Your task to perform on an android device: Search for "usb-c to usb-b" on ebay, select the first entry, and add it to the cart. Image 0: 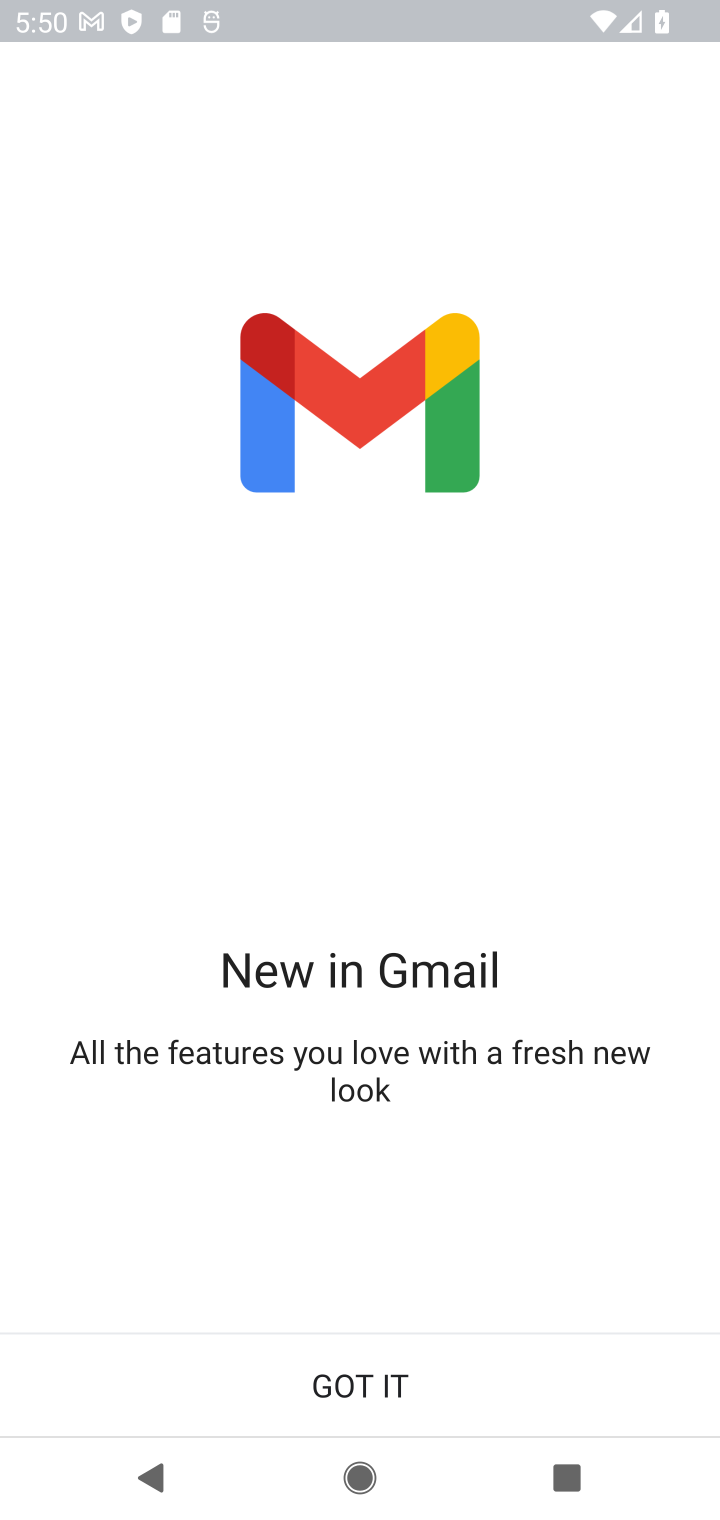
Step 0: press home button
Your task to perform on an android device: Search for "usb-c to usb-b" on ebay, select the first entry, and add it to the cart. Image 1: 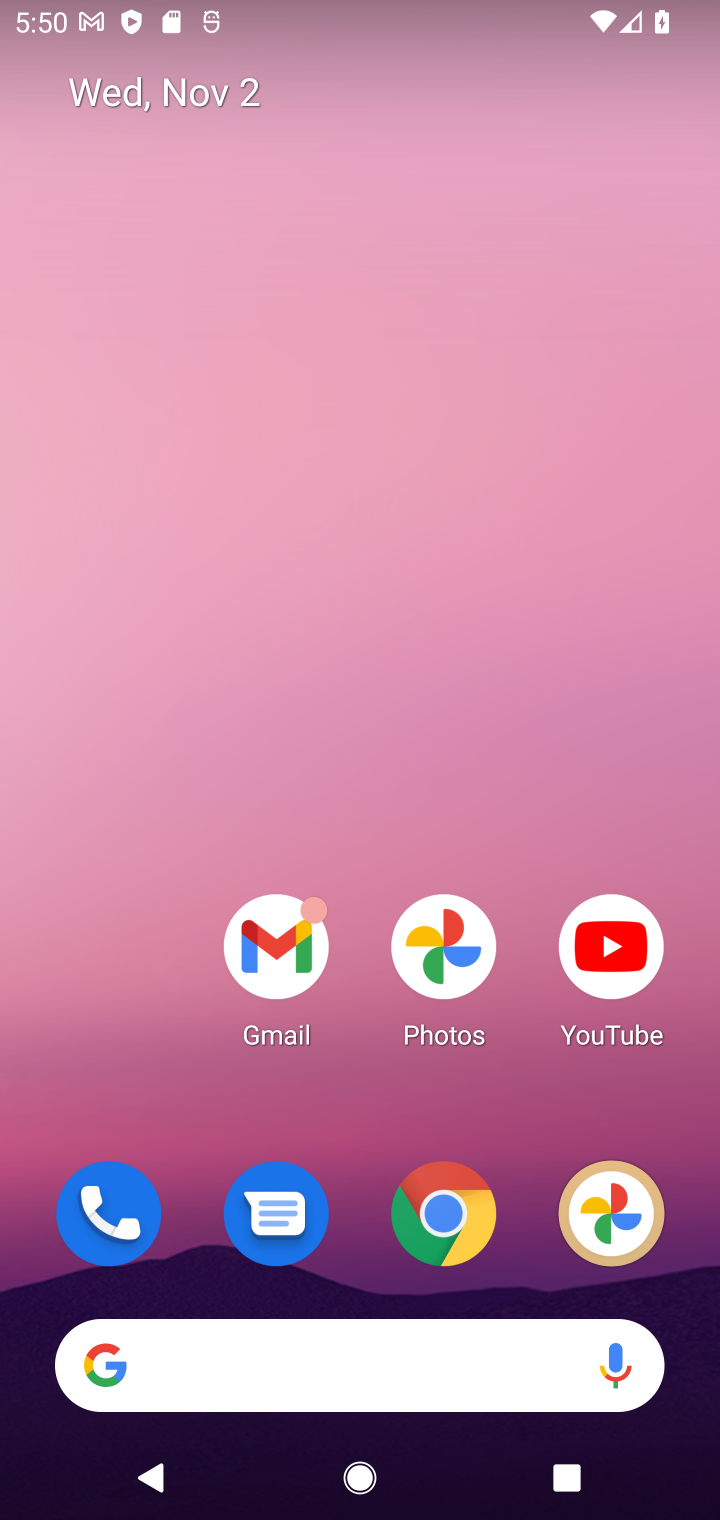
Step 1: click (452, 1210)
Your task to perform on an android device: Search for "usb-c to usb-b" on ebay, select the first entry, and add it to the cart. Image 2: 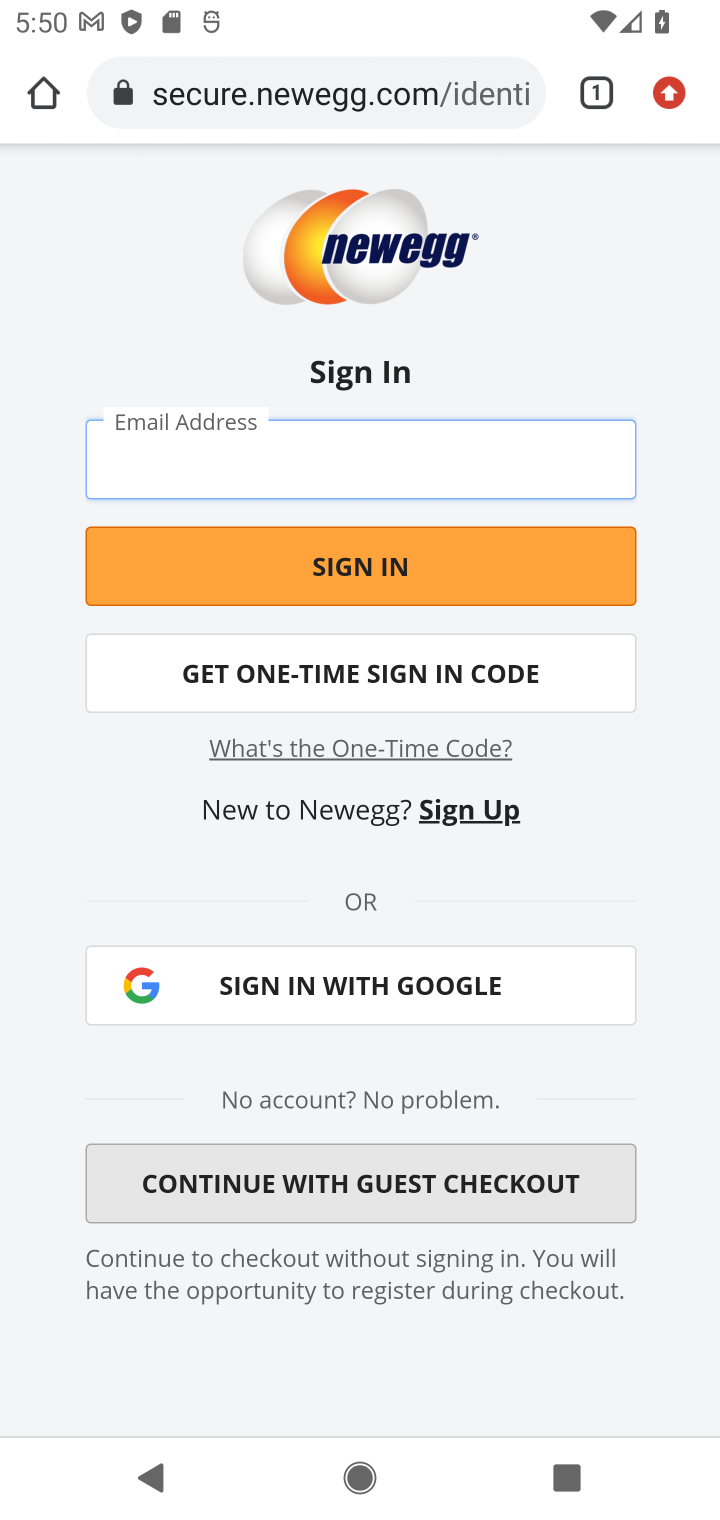
Step 2: click (395, 63)
Your task to perform on an android device: Search for "usb-c to usb-b" on ebay, select the first entry, and add it to the cart. Image 3: 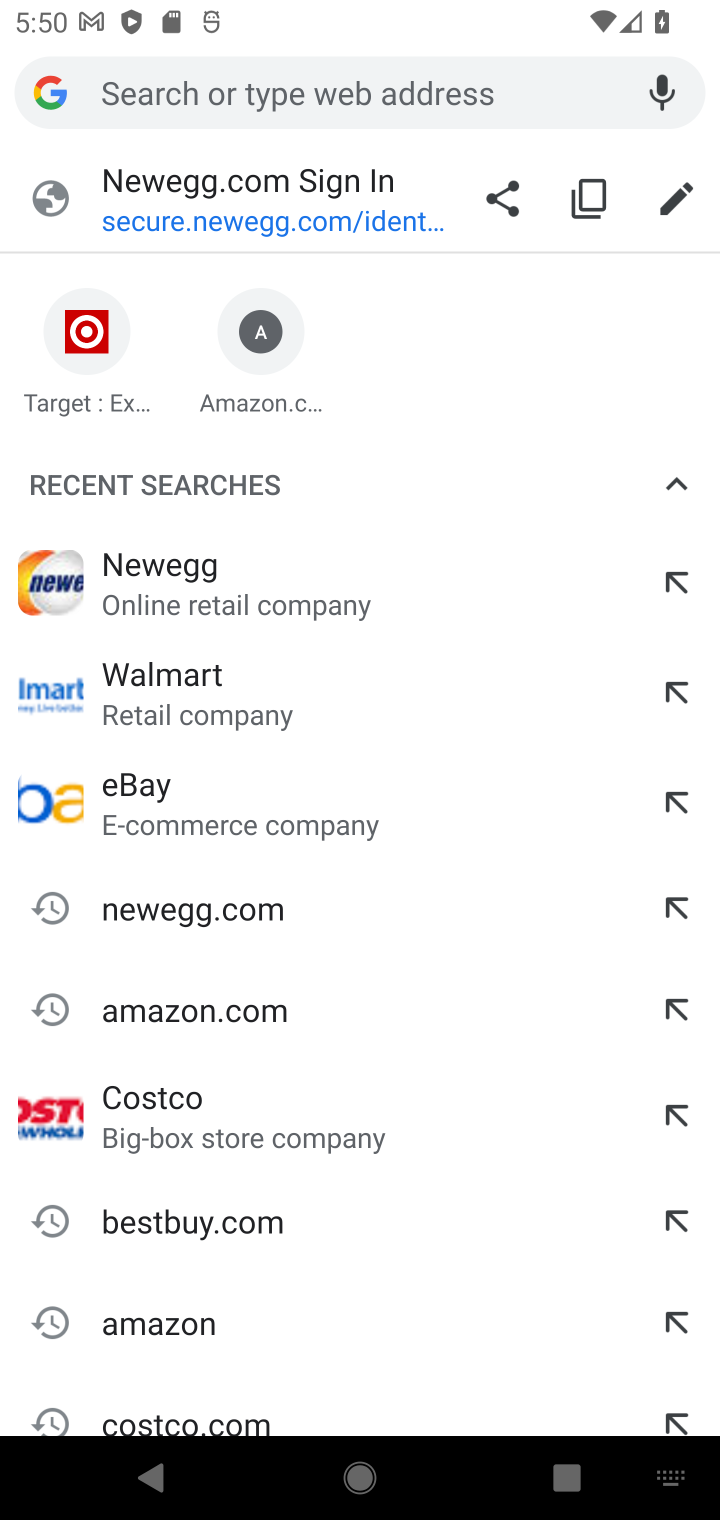
Step 3: click (184, 826)
Your task to perform on an android device: Search for "usb-c to usb-b" on ebay, select the first entry, and add it to the cart. Image 4: 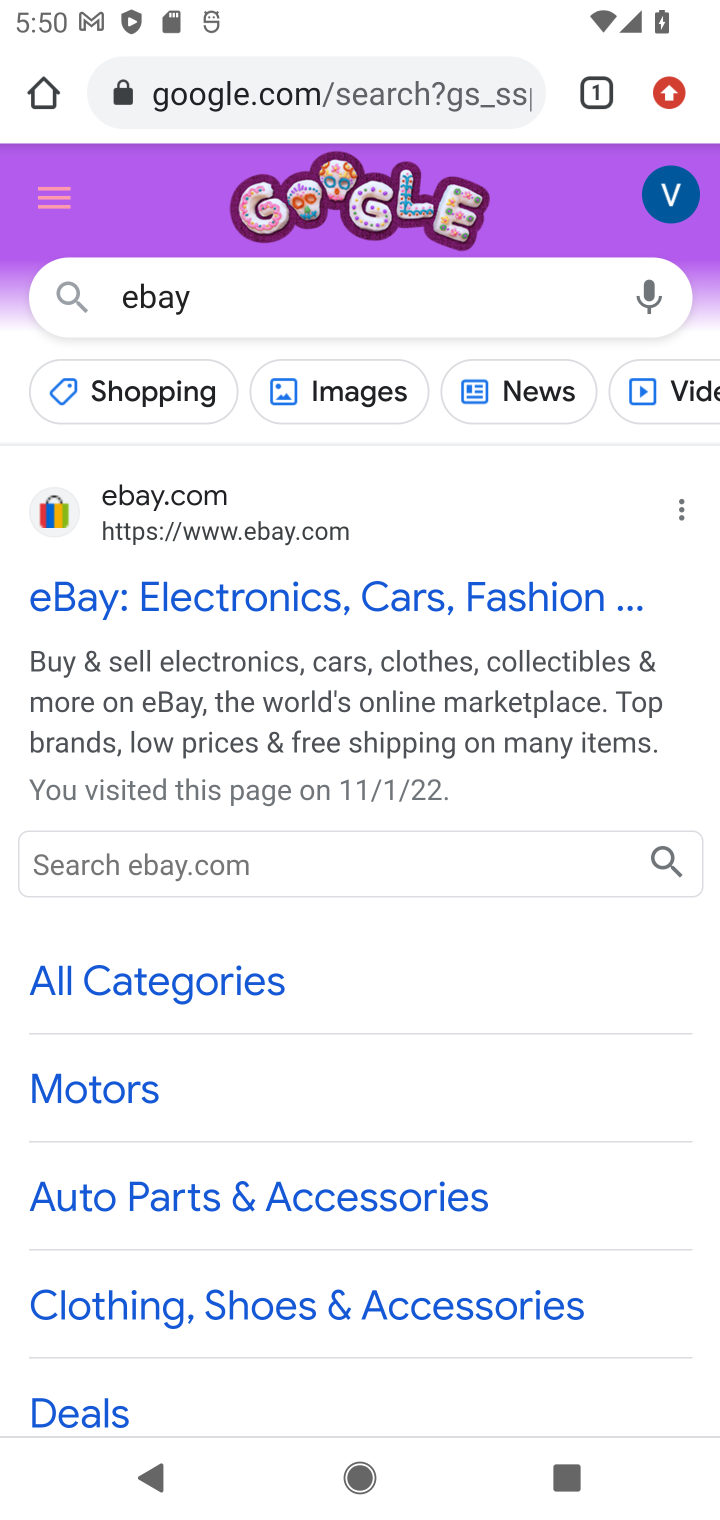
Step 4: click (170, 586)
Your task to perform on an android device: Search for "usb-c to usb-b" on ebay, select the first entry, and add it to the cart. Image 5: 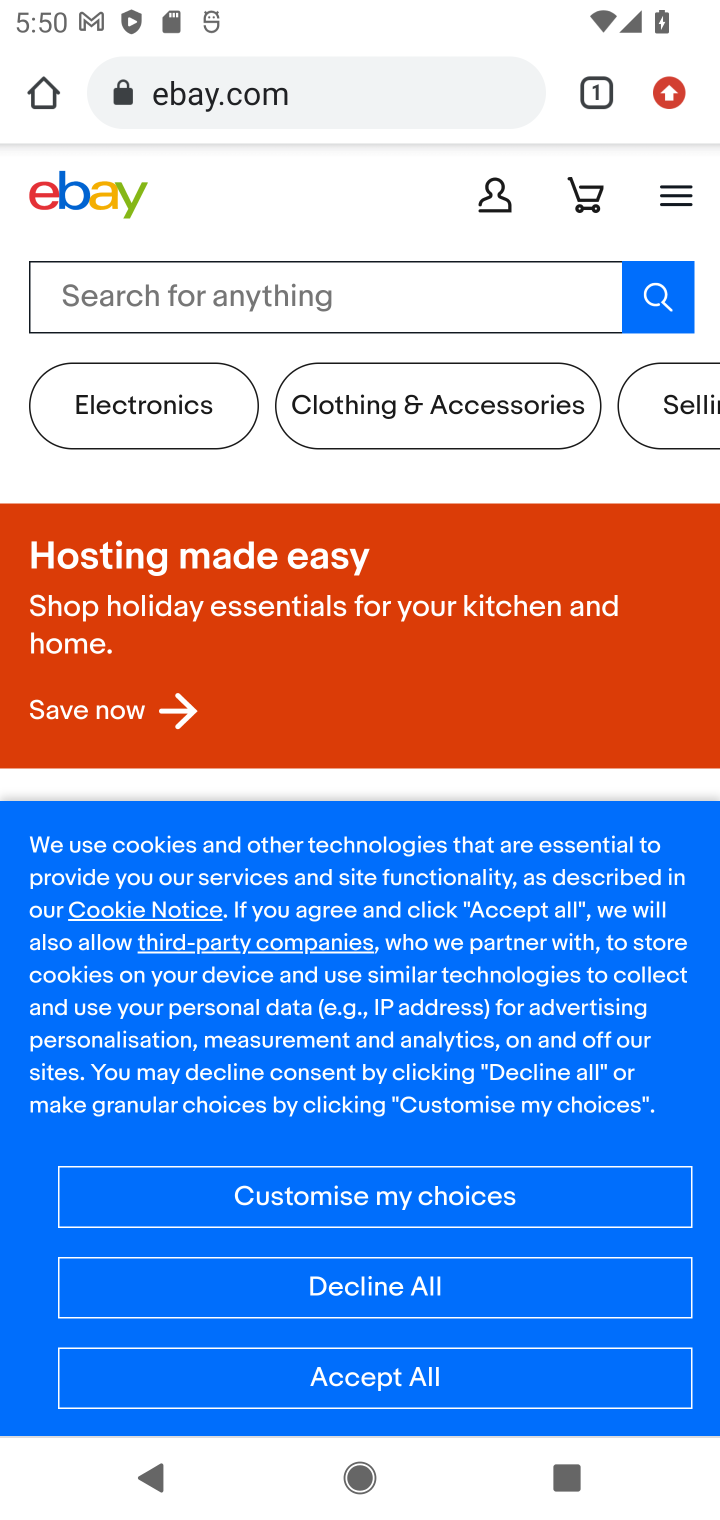
Step 5: click (282, 286)
Your task to perform on an android device: Search for "usb-c to usb-b" on ebay, select the first entry, and add it to the cart. Image 6: 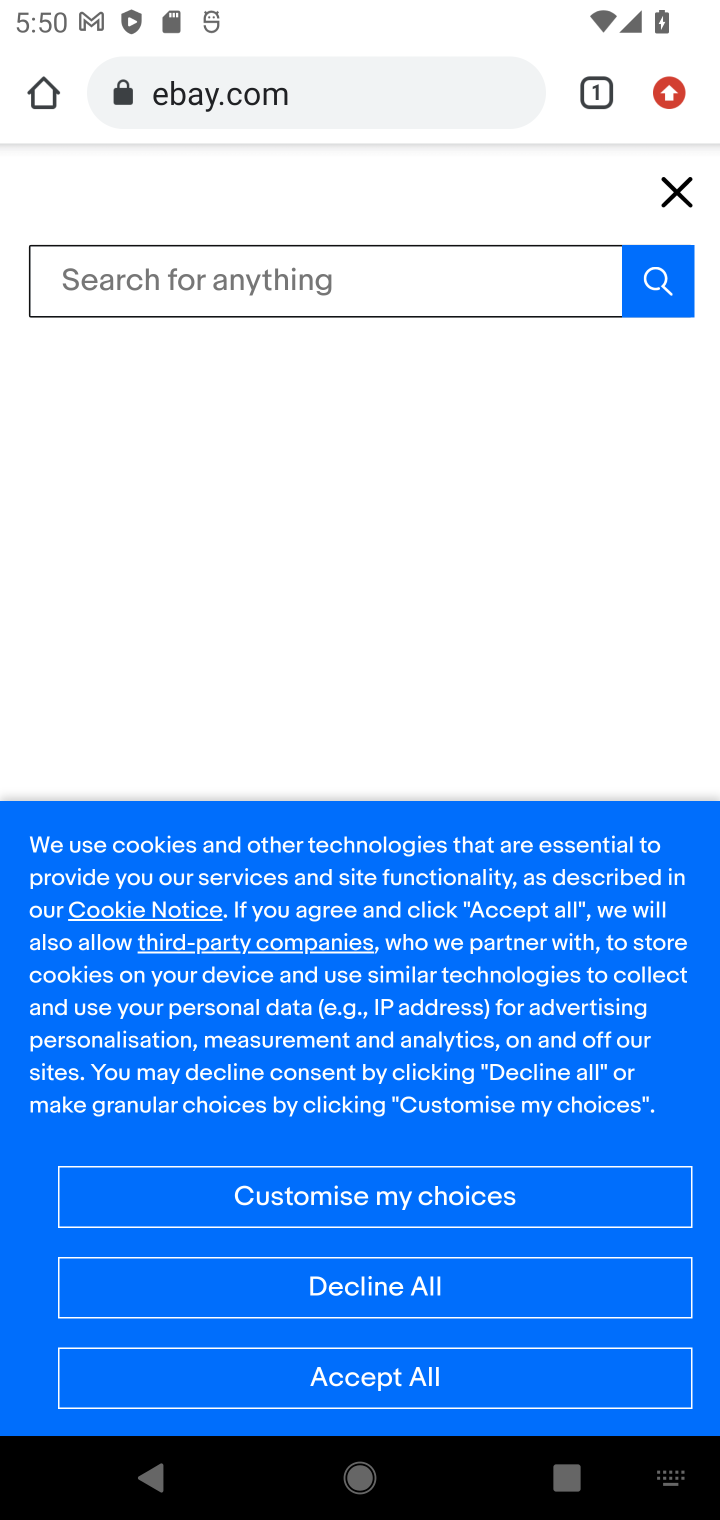
Step 6: type "usb-c to usb-b"
Your task to perform on an android device: Search for "usb-c to usb-b" on ebay, select the first entry, and add it to the cart. Image 7: 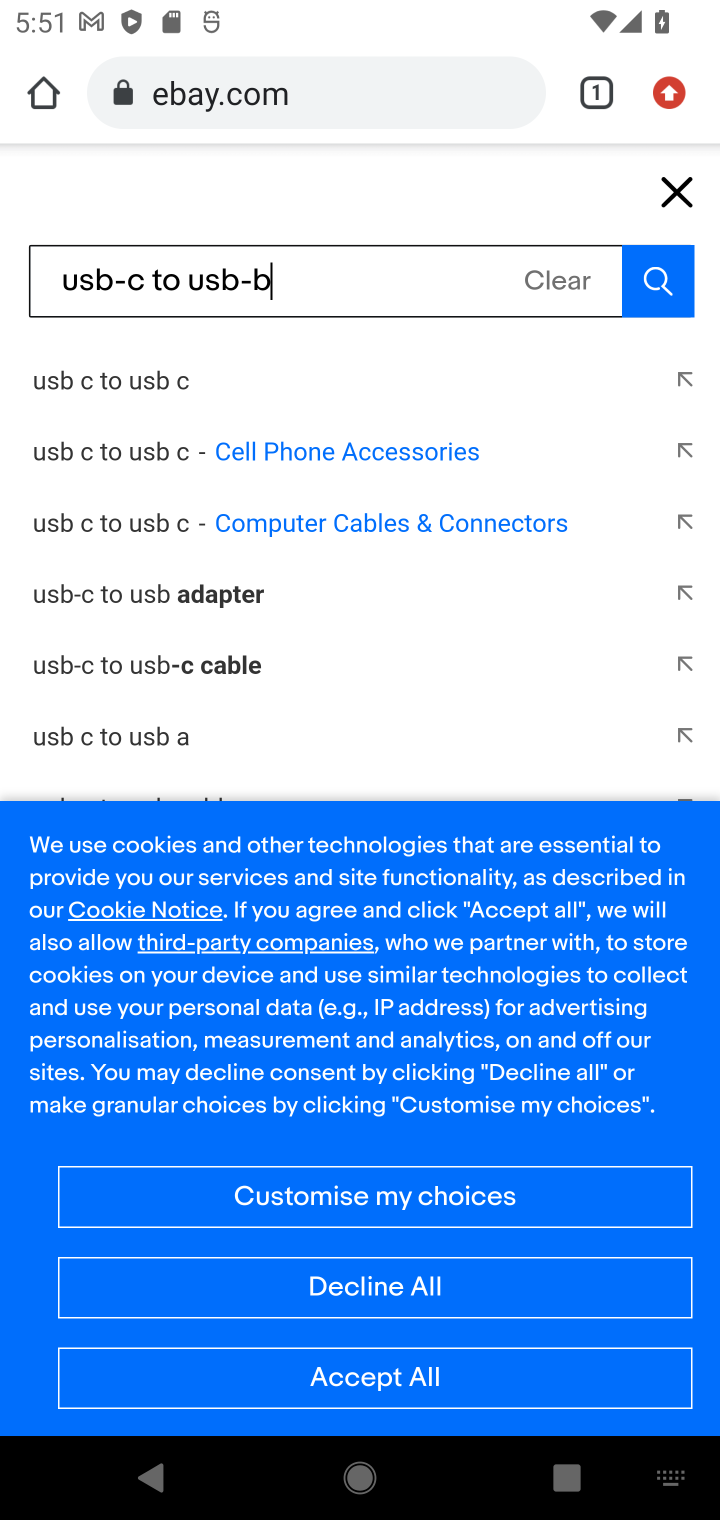
Step 7: click (648, 275)
Your task to perform on an android device: Search for "usb-c to usb-b" on ebay, select the first entry, and add it to the cart. Image 8: 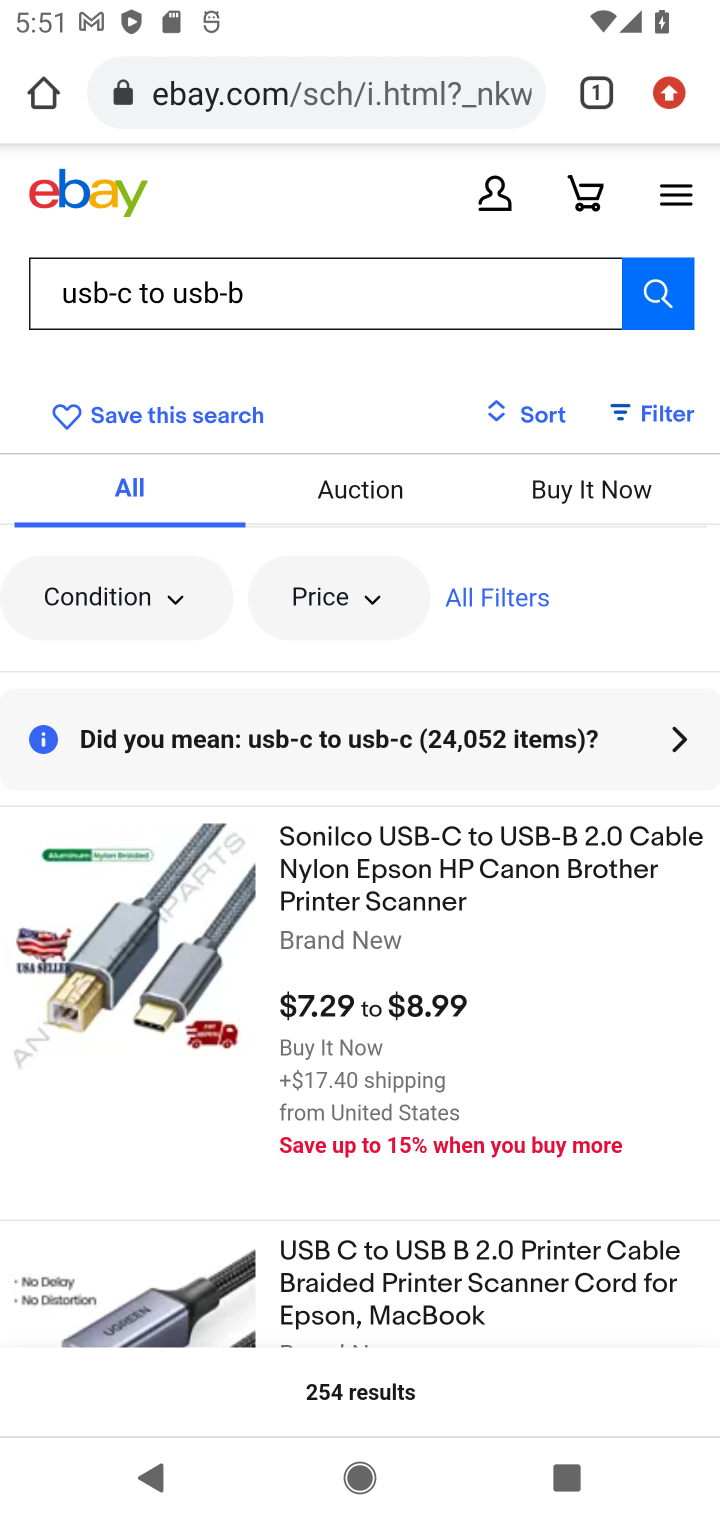
Step 8: click (340, 882)
Your task to perform on an android device: Search for "usb-c to usb-b" on ebay, select the first entry, and add it to the cart. Image 9: 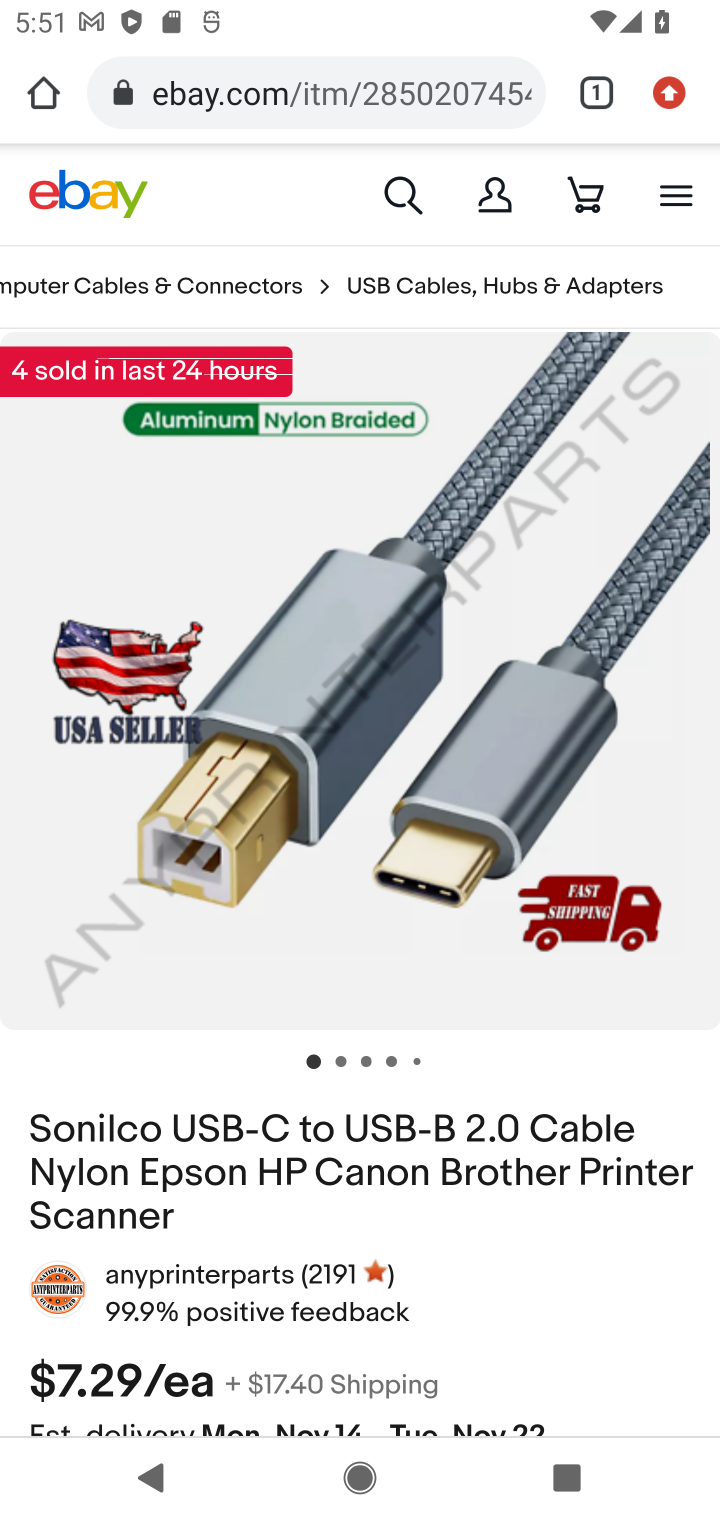
Step 9: drag from (350, 1180) to (429, 736)
Your task to perform on an android device: Search for "usb-c to usb-b" on ebay, select the first entry, and add it to the cart. Image 10: 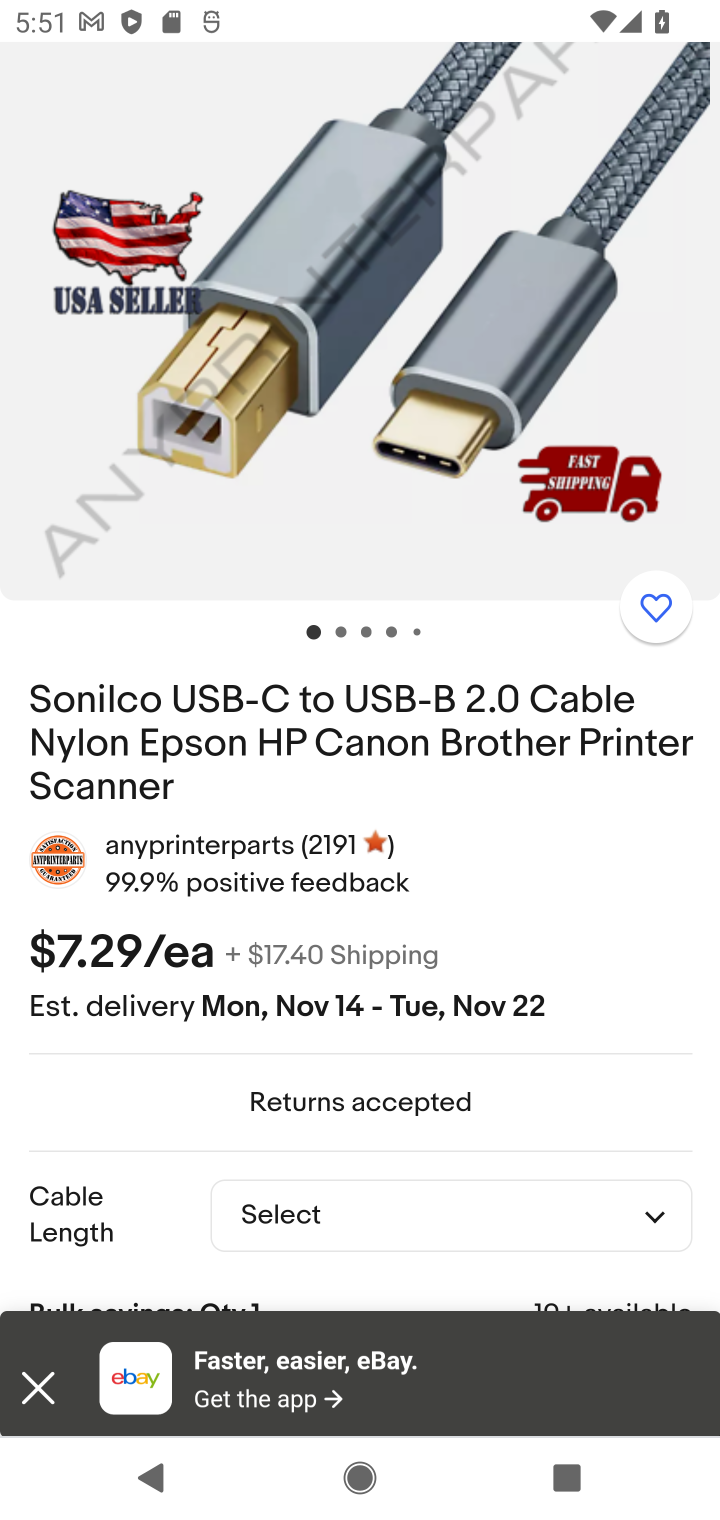
Step 10: drag from (471, 1128) to (444, 767)
Your task to perform on an android device: Search for "usb-c to usb-b" on ebay, select the first entry, and add it to the cart. Image 11: 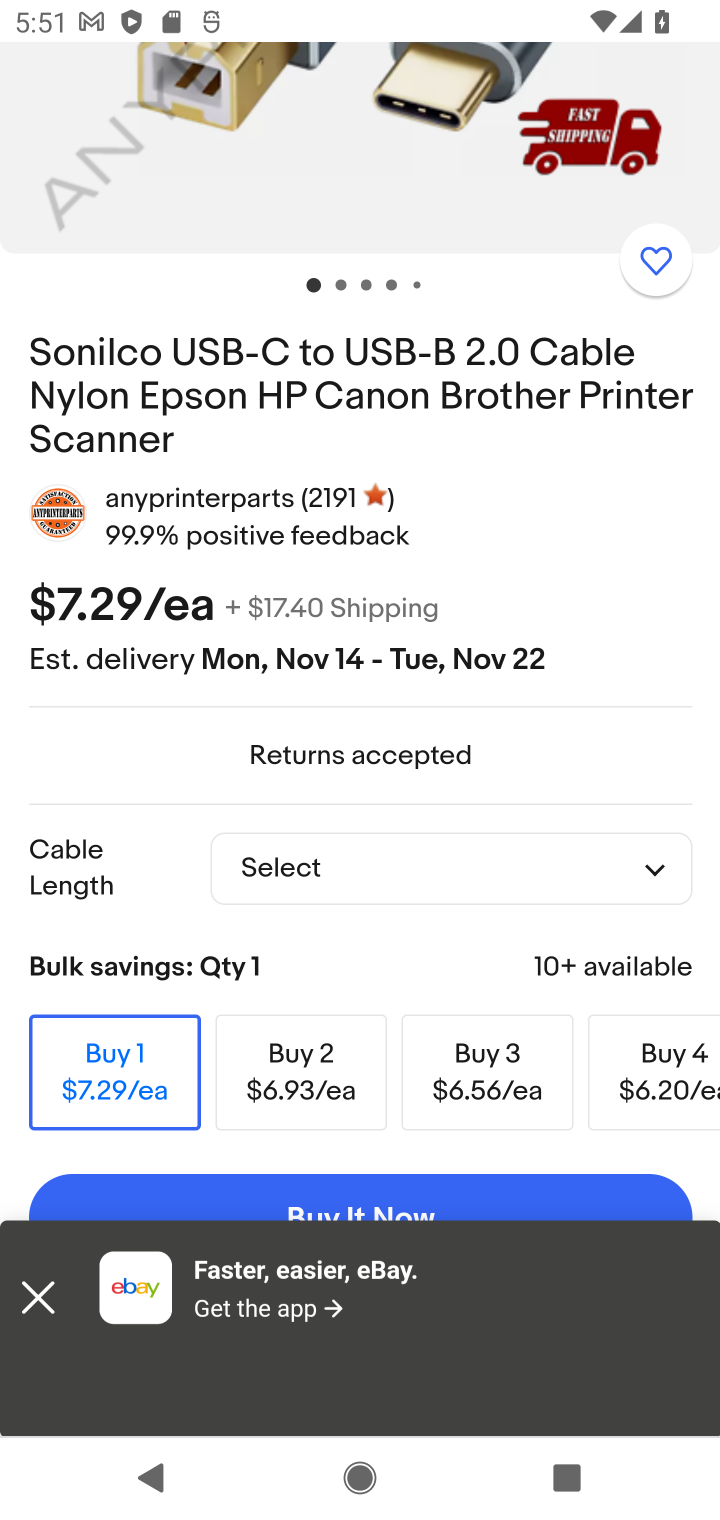
Step 11: drag from (392, 1019) to (506, 600)
Your task to perform on an android device: Search for "usb-c to usb-b" on ebay, select the first entry, and add it to the cart. Image 12: 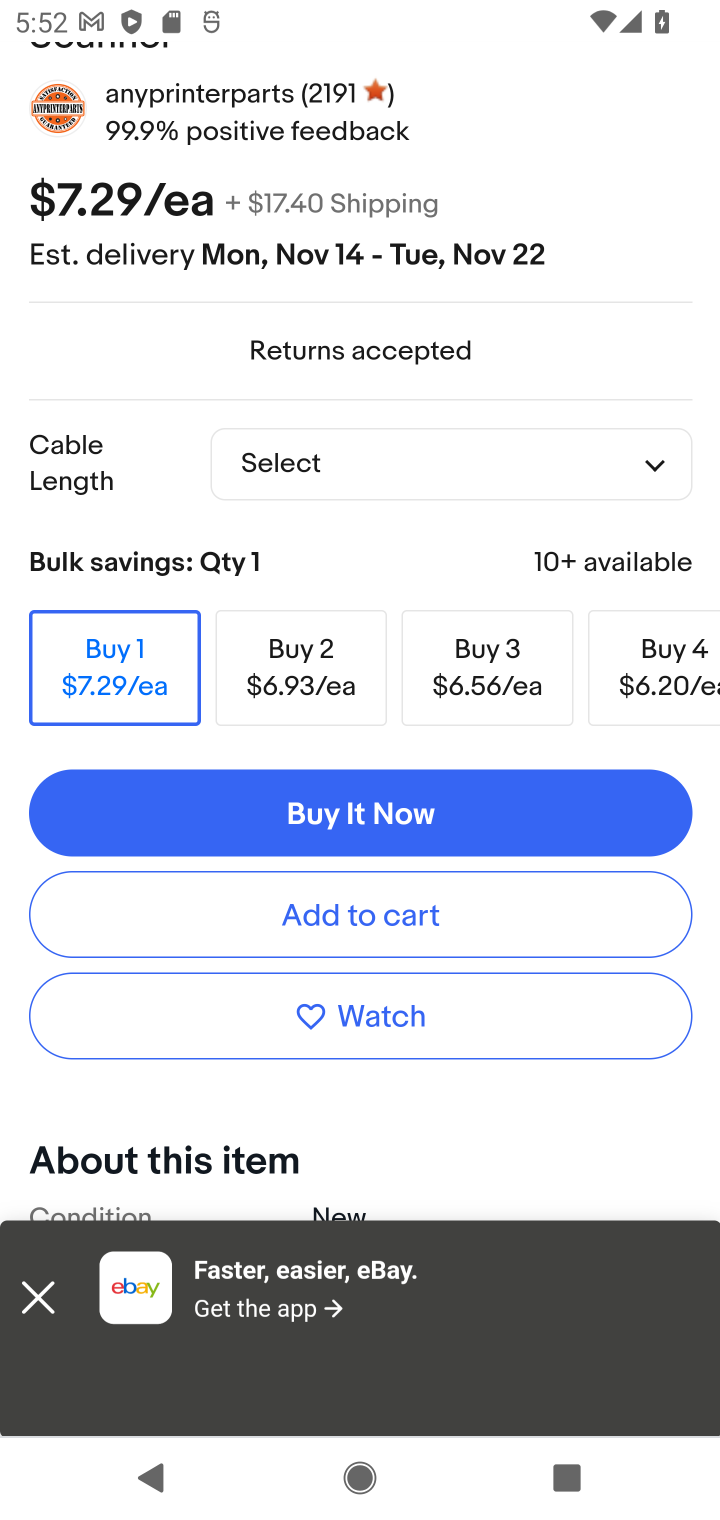
Step 12: click (316, 912)
Your task to perform on an android device: Search for "usb-c to usb-b" on ebay, select the first entry, and add it to the cart. Image 13: 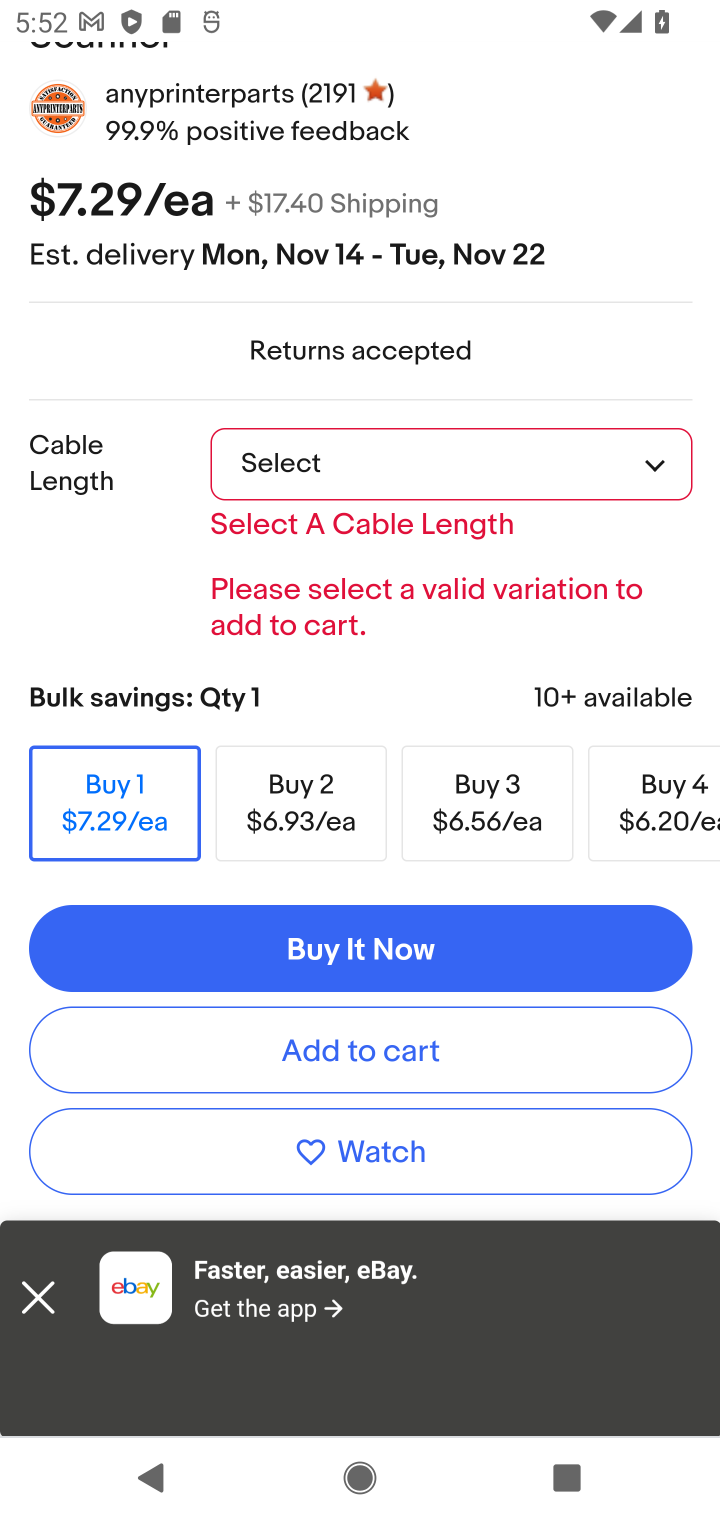
Step 13: click (660, 473)
Your task to perform on an android device: Search for "usb-c to usb-b" on ebay, select the first entry, and add it to the cart. Image 14: 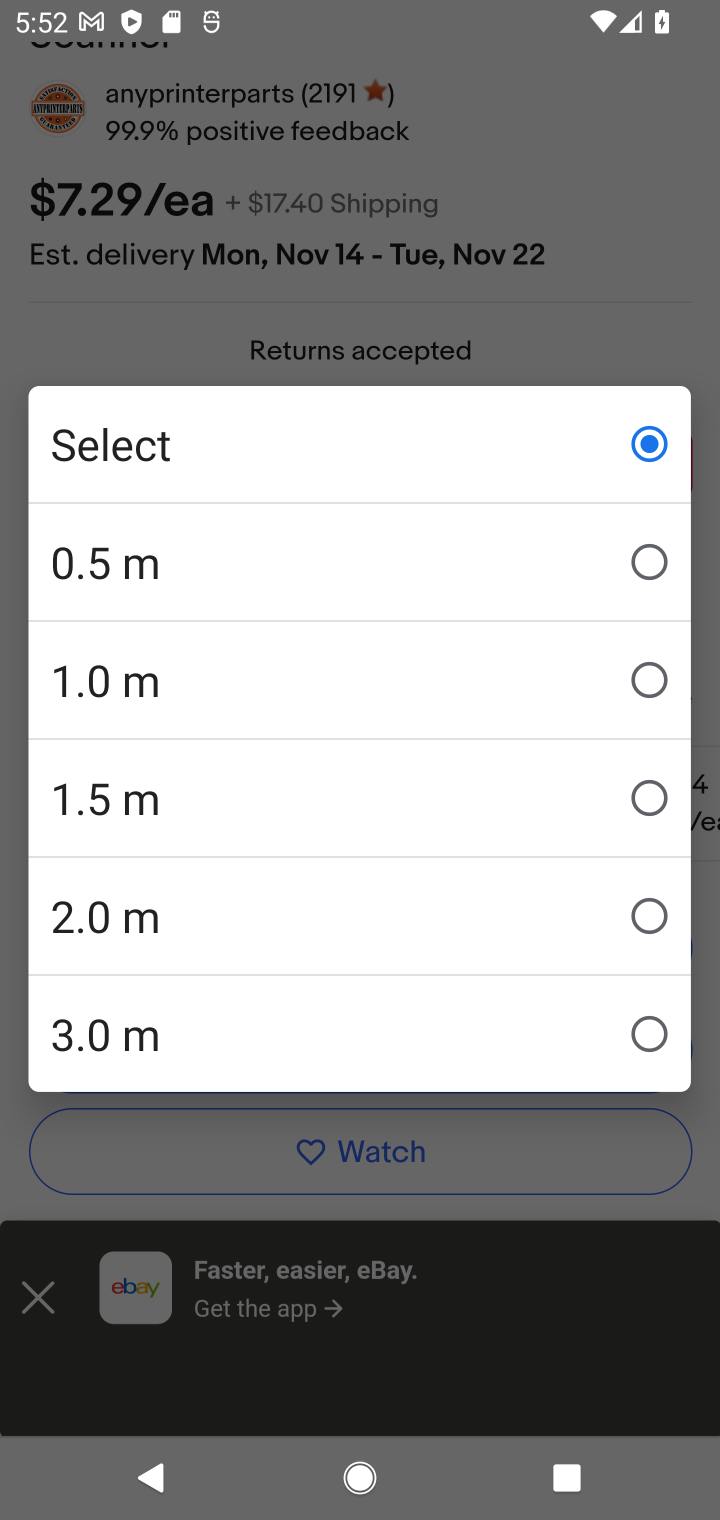
Step 14: click (651, 915)
Your task to perform on an android device: Search for "usb-c to usb-b" on ebay, select the first entry, and add it to the cart. Image 15: 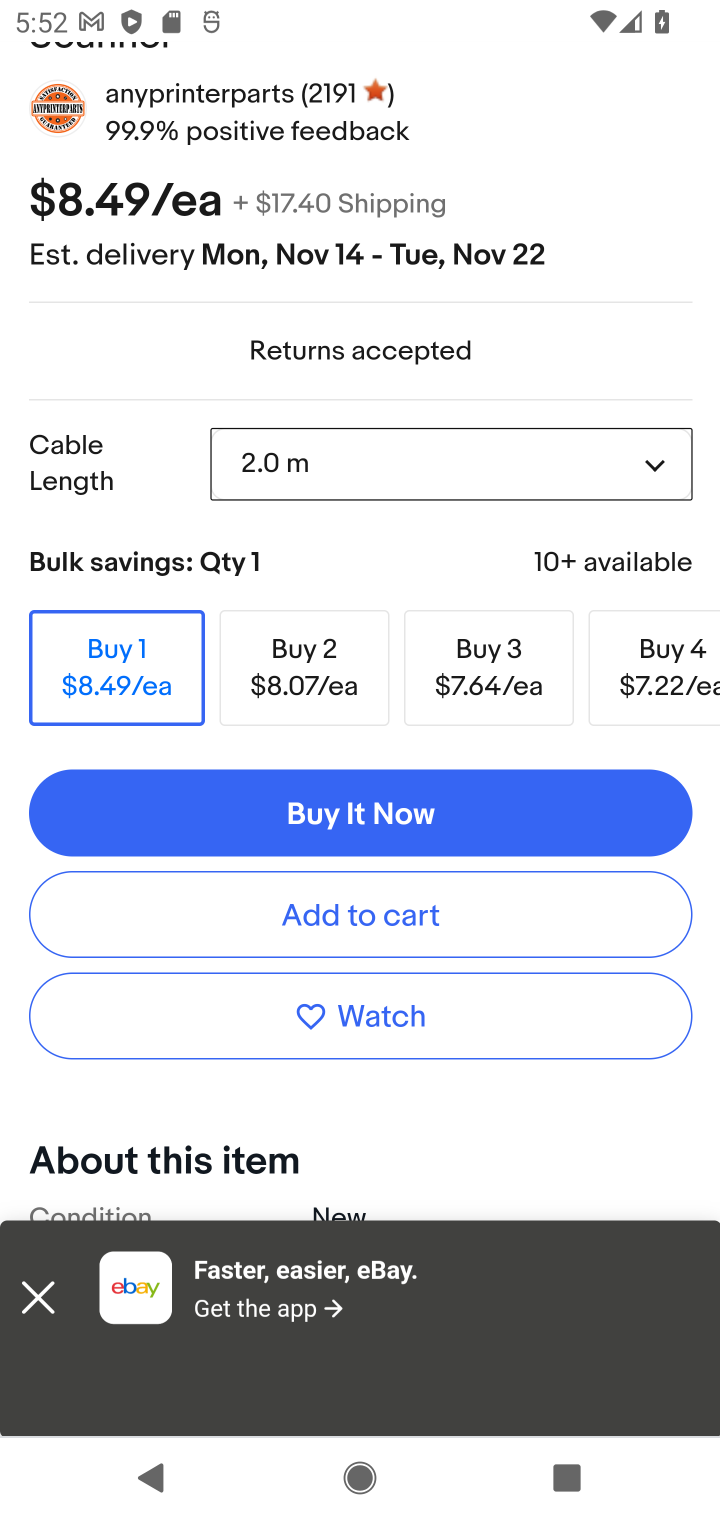
Step 15: click (324, 912)
Your task to perform on an android device: Search for "usb-c to usb-b" on ebay, select the first entry, and add it to the cart. Image 16: 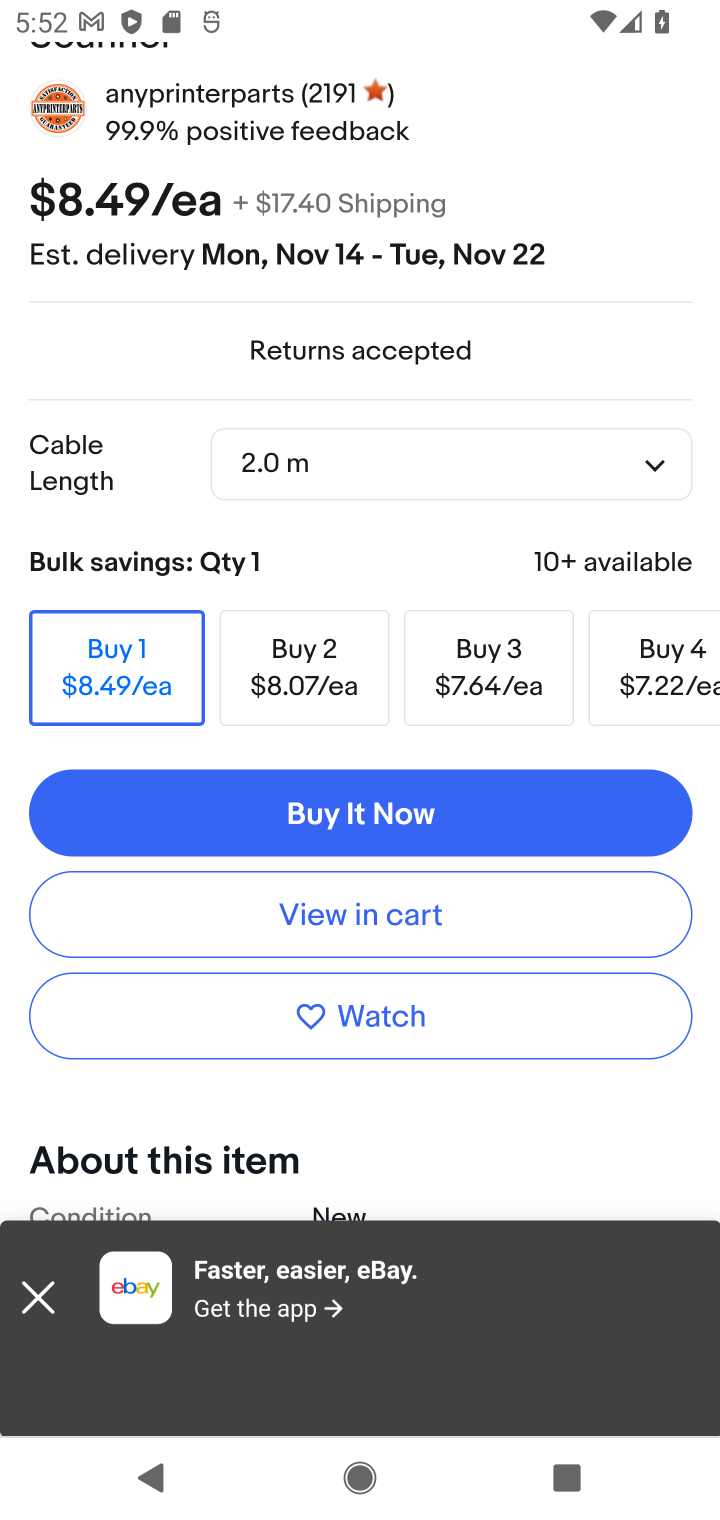
Step 16: task complete